Your task to perform on an android device: Open calendar and show me the third week of next month Image 0: 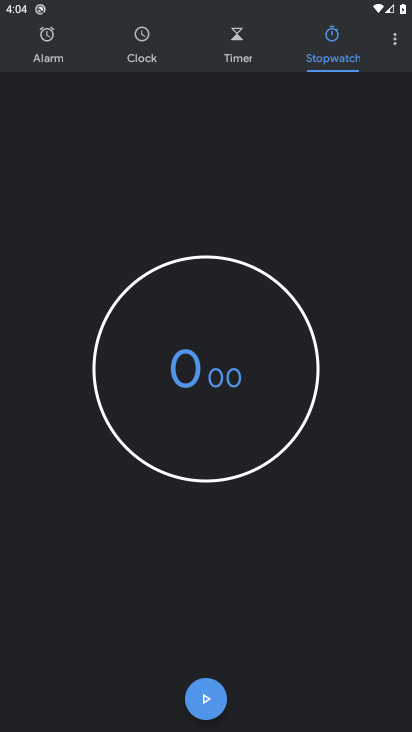
Step 0: press home button
Your task to perform on an android device: Open calendar and show me the third week of next month Image 1: 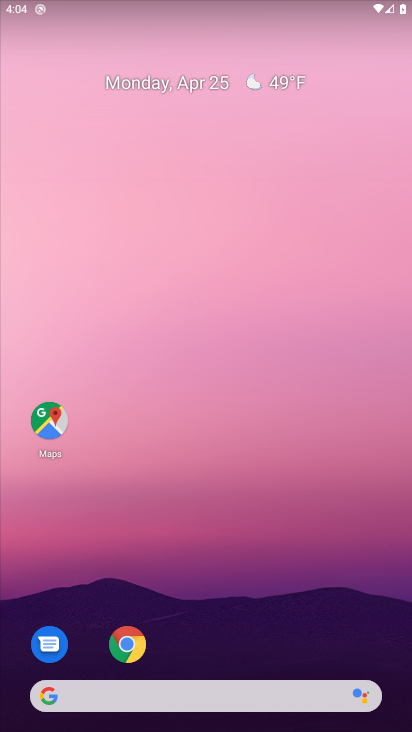
Step 1: drag from (224, 624) to (190, 9)
Your task to perform on an android device: Open calendar and show me the third week of next month Image 2: 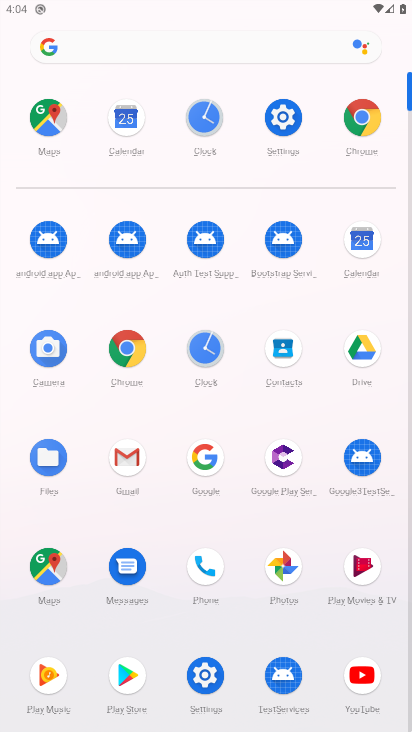
Step 2: click (359, 252)
Your task to perform on an android device: Open calendar and show me the third week of next month Image 3: 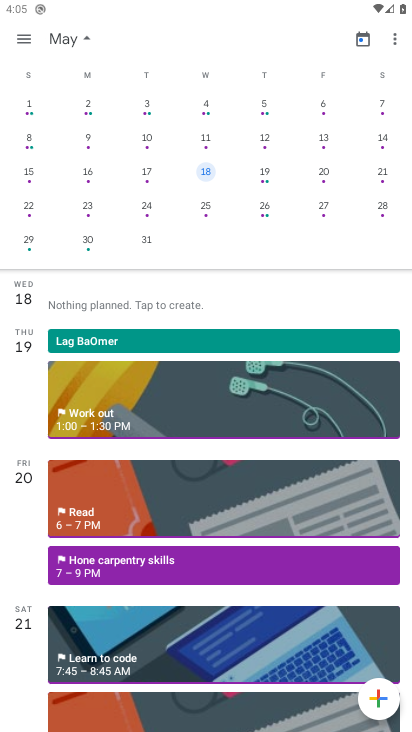
Step 3: click (261, 169)
Your task to perform on an android device: Open calendar and show me the third week of next month Image 4: 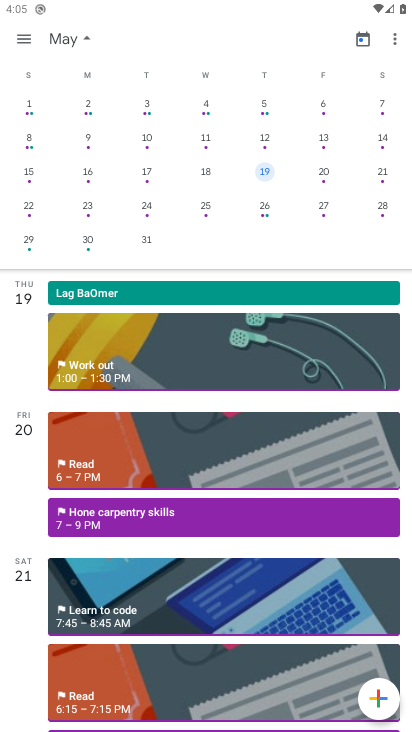
Step 4: task complete